Your task to perform on an android device: turn on improve location accuracy Image 0: 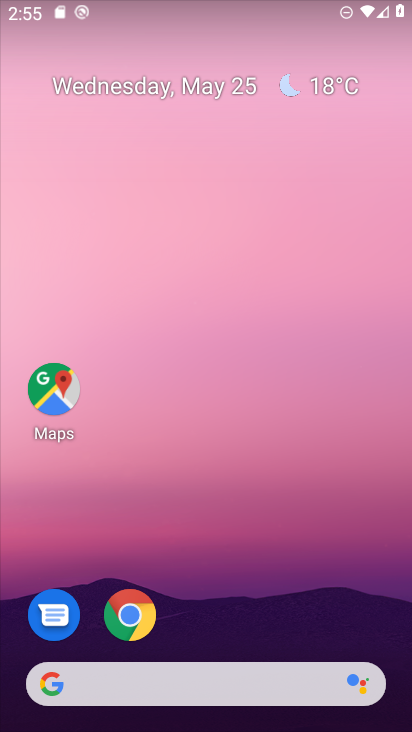
Step 0: drag from (252, 571) to (307, 0)
Your task to perform on an android device: turn on improve location accuracy Image 1: 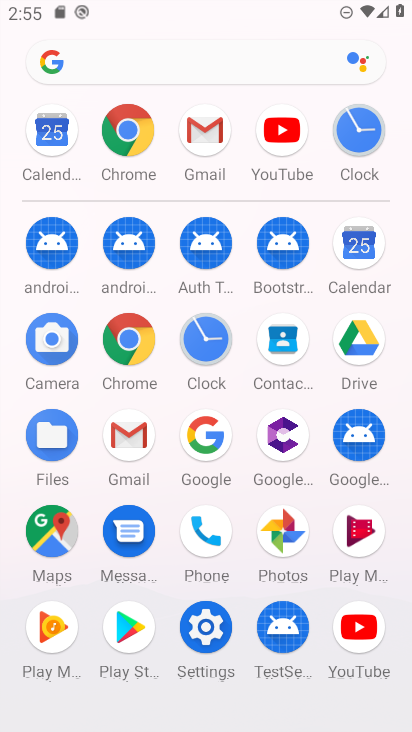
Step 1: click (210, 616)
Your task to perform on an android device: turn on improve location accuracy Image 2: 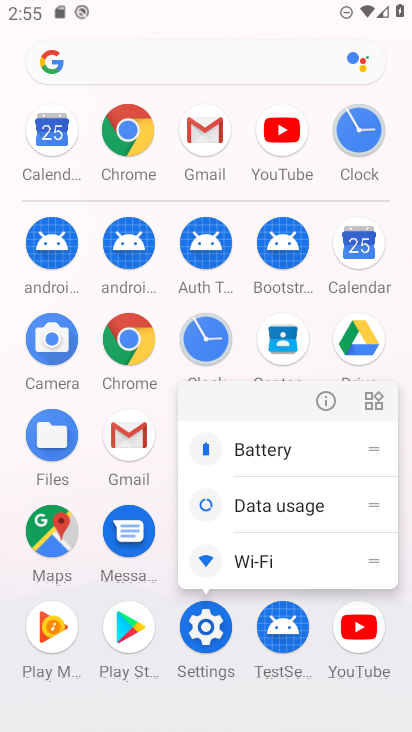
Step 2: click (202, 623)
Your task to perform on an android device: turn on improve location accuracy Image 3: 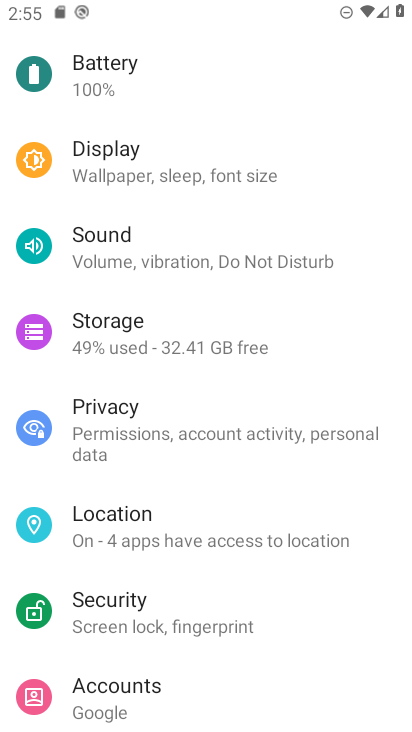
Step 3: click (235, 527)
Your task to perform on an android device: turn on improve location accuracy Image 4: 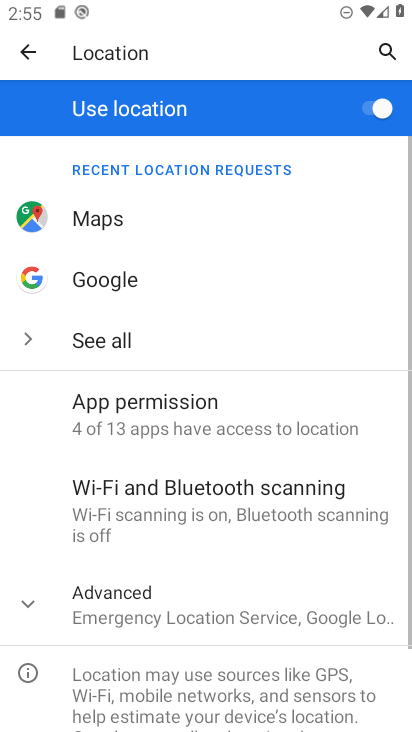
Step 4: click (30, 596)
Your task to perform on an android device: turn on improve location accuracy Image 5: 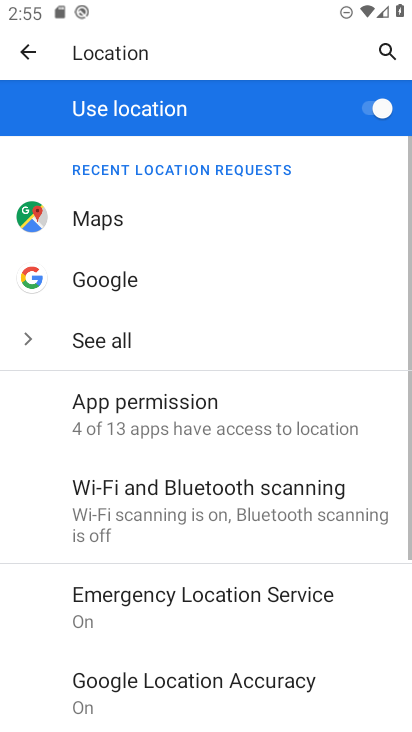
Step 5: task complete